Your task to perform on an android device: empty trash in google photos Image 0: 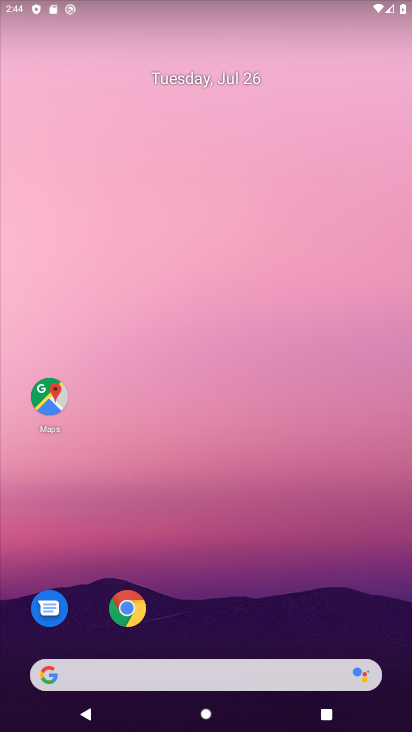
Step 0: drag from (191, 531) to (149, 16)
Your task to perform on an android device: empty trash in google photos Image 1: 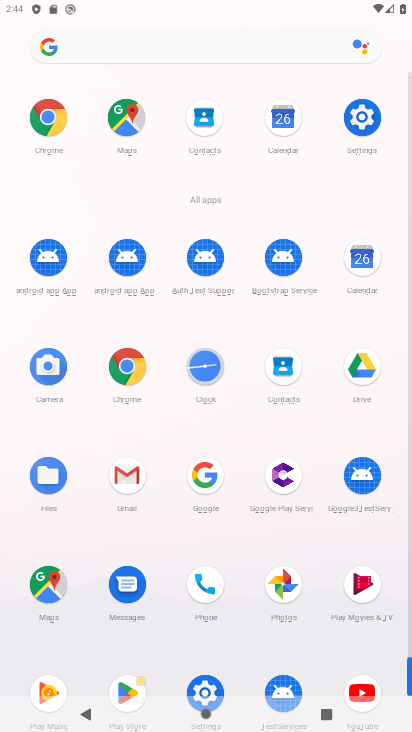
Step 1: click (281, 587)
Your task to perform on an android device: empty trash in google photos Image 2: 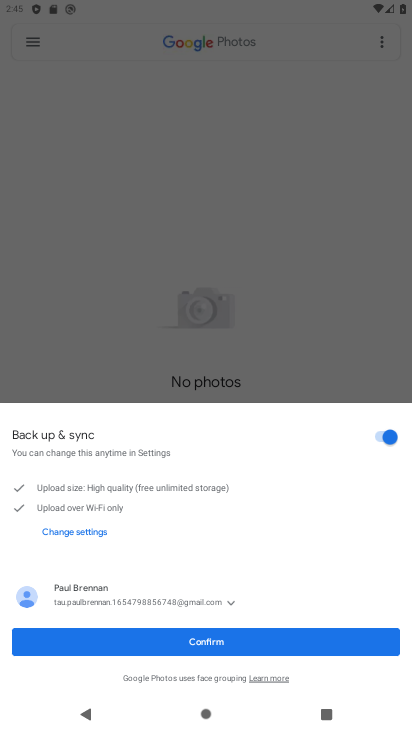
Step 2: click (235, 641)
Your task to perform on an android device: empty trash in google photos Image 3: 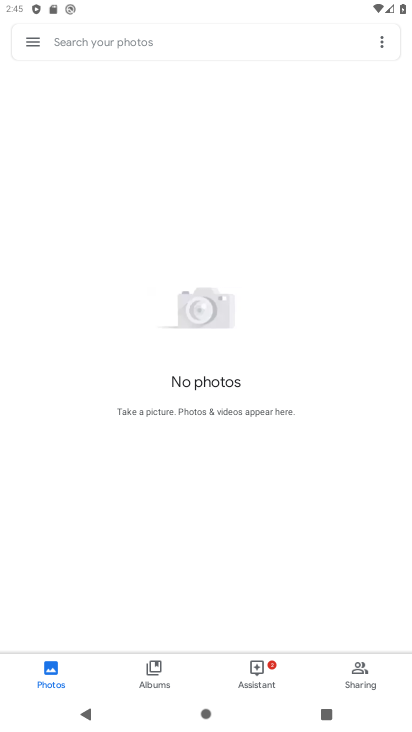
Step 3: click (27, 33)
Your task to perform on an android device: empty trash in google photos Image 4: 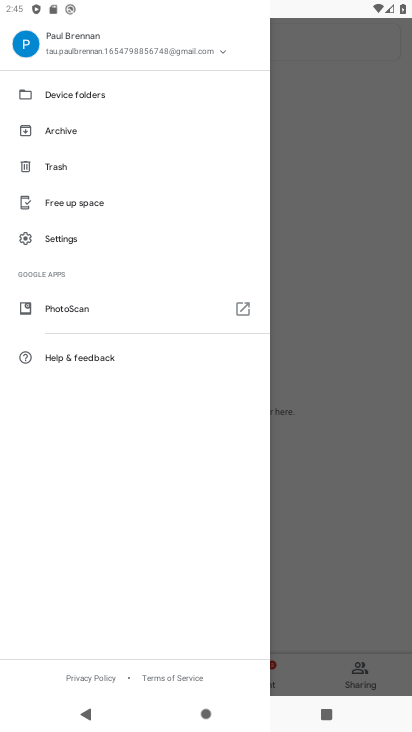
Step 4: click (58, 164)
Your task to perform on an android device: empty trash in google photos Image 5: 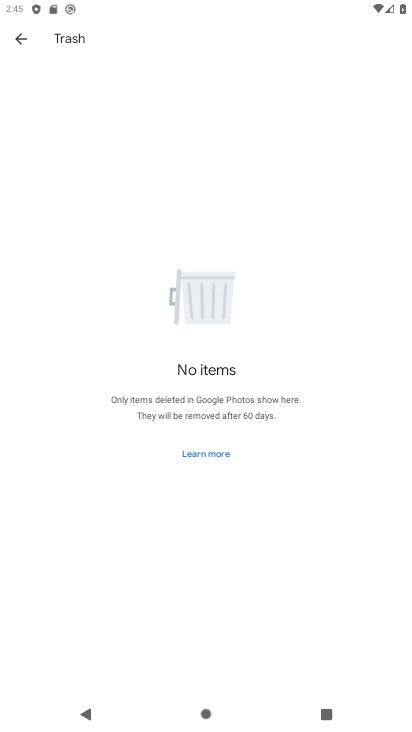
Step 5: task complete